Your task to perform on an android device: open app "TextNow: Call + Text Unlimited" (install if not already installed) and enter user name: "stoke@yahoo.com" and password: "prompted" Image 0: 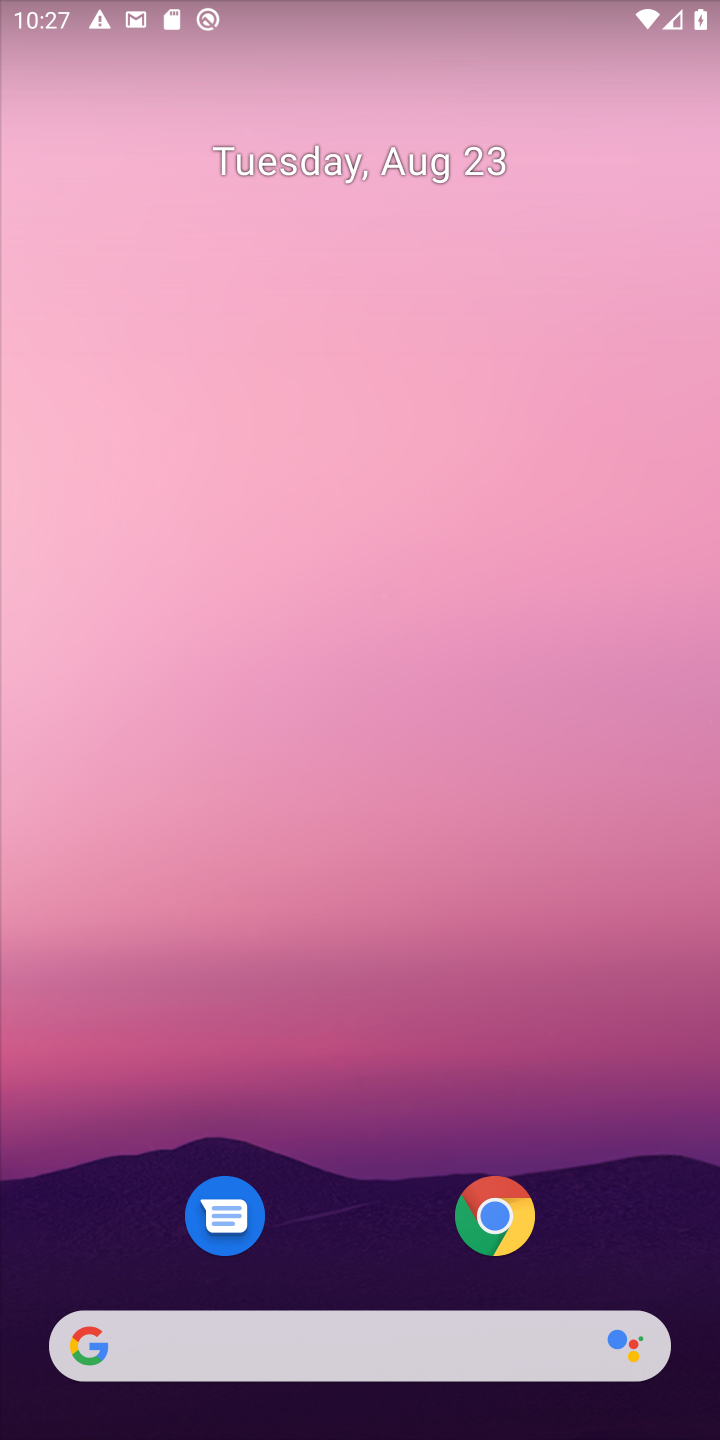
Step 0: drag from (321, 1323) to (366, 93)
Your task to perform on an android device: open app "TextNow: Call + Text Unlimited" (install if not already installed) and enter user name: "stoke@yahoo.com" and password: "prompted" Image 1: 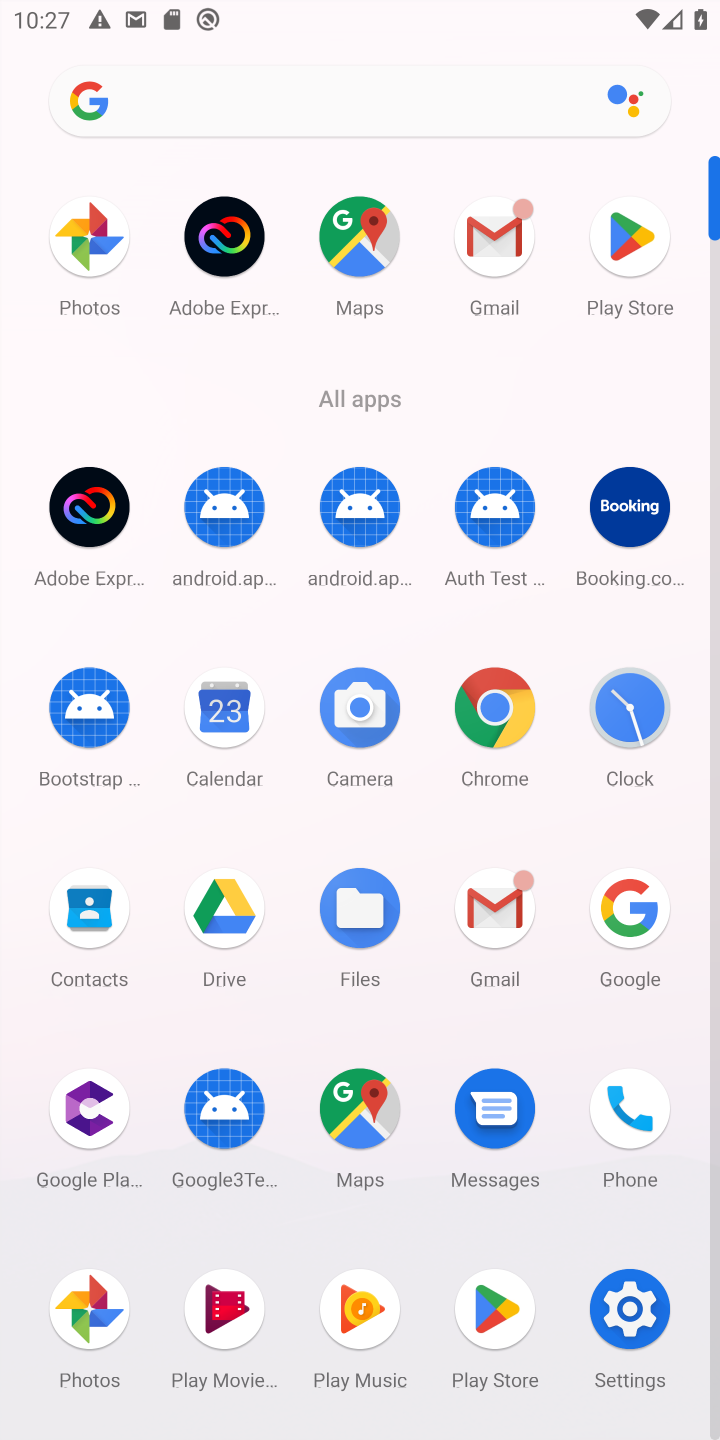
Step 1: click (634, 246)
Your task to perform on an android device: open app "TextNow: Call + Text Unlimited" (install if not already installed) and enter user name: "stoke@yahoo.com" and password: "prompted" Image 2: 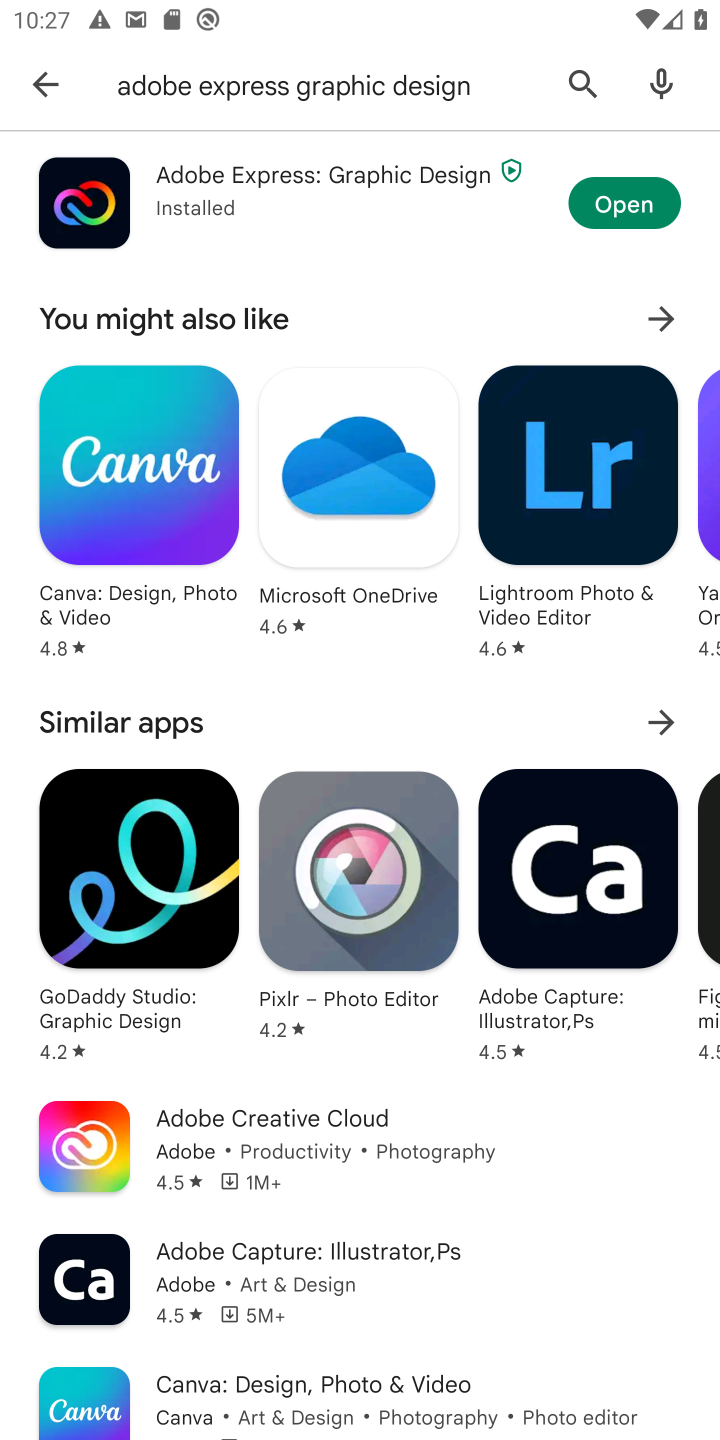
Step 2: press back button
Your task to perform on an android device: open app "TextNow: Call + Text Unlimited" (install if not already installed) and enter user name: "stoke@yahoo.com" and password: "prompted" Image 3: 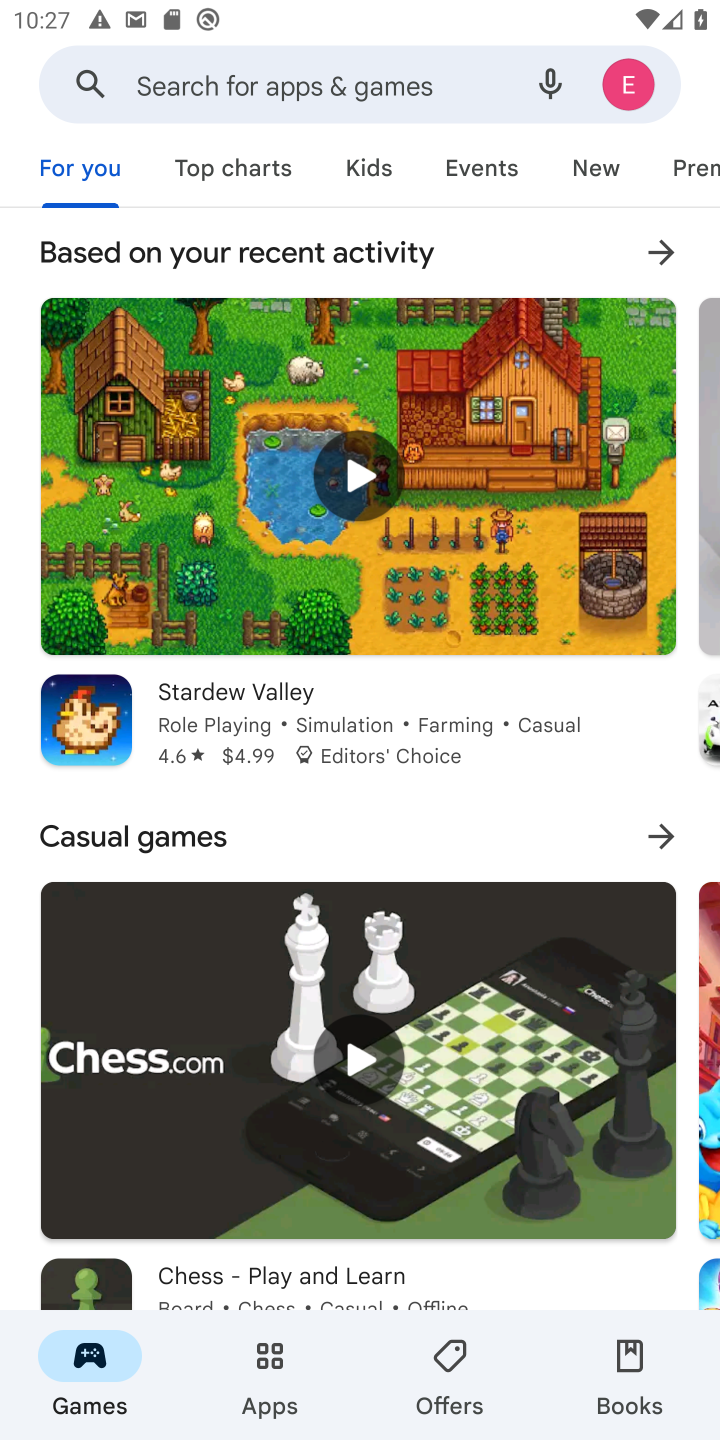
Step 3: click (353, 89)
Your task to perform on an android device: open app "TextNow: Call + Text Unlimited" (install if not already installed) and enter user name: "stoke@yahoo.com" and password: "prompted" Image 4: 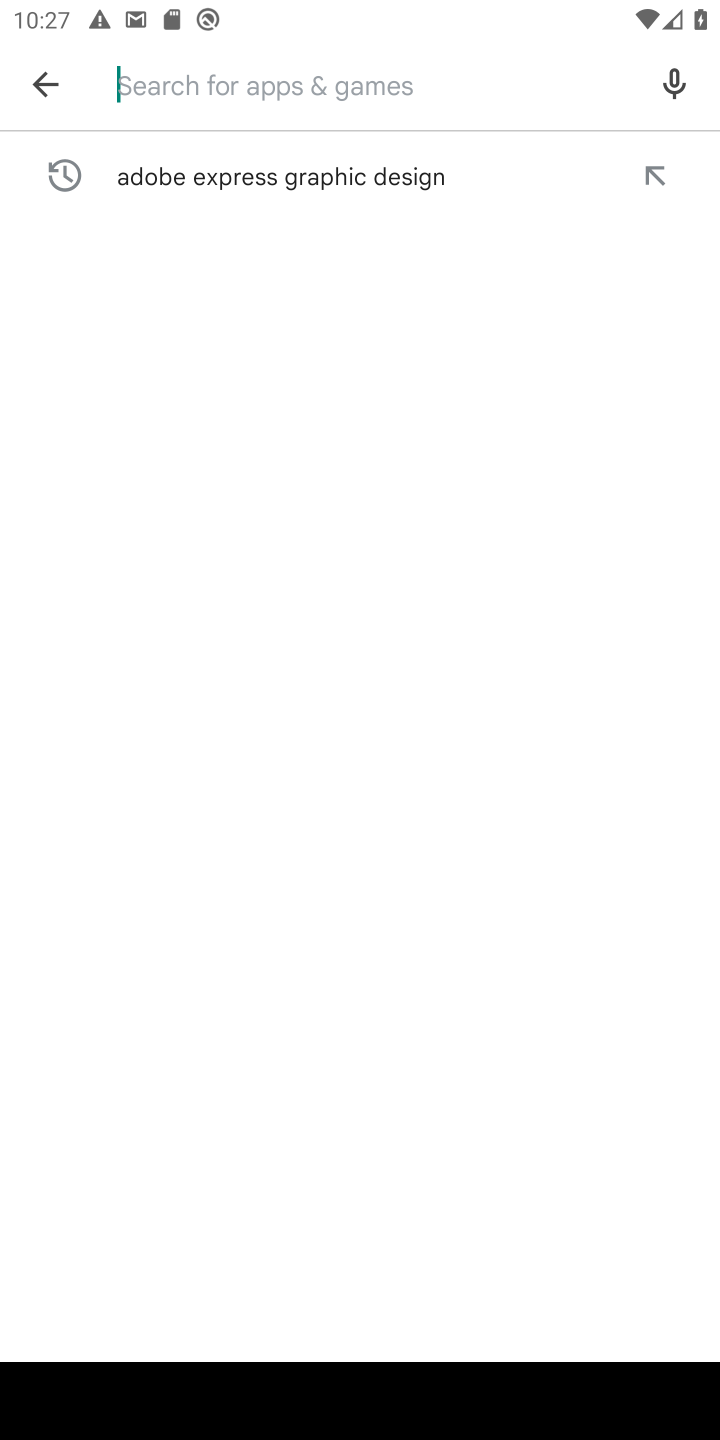
Step 4: type "TextNow: Call + Text Unlimited"
Your task to perform on an android device: open app "TextNow: Call + Text Unlimited" (install if not already installed) and enter user name: "stoke@yahoo.com" and password: "prompted" Image 5: 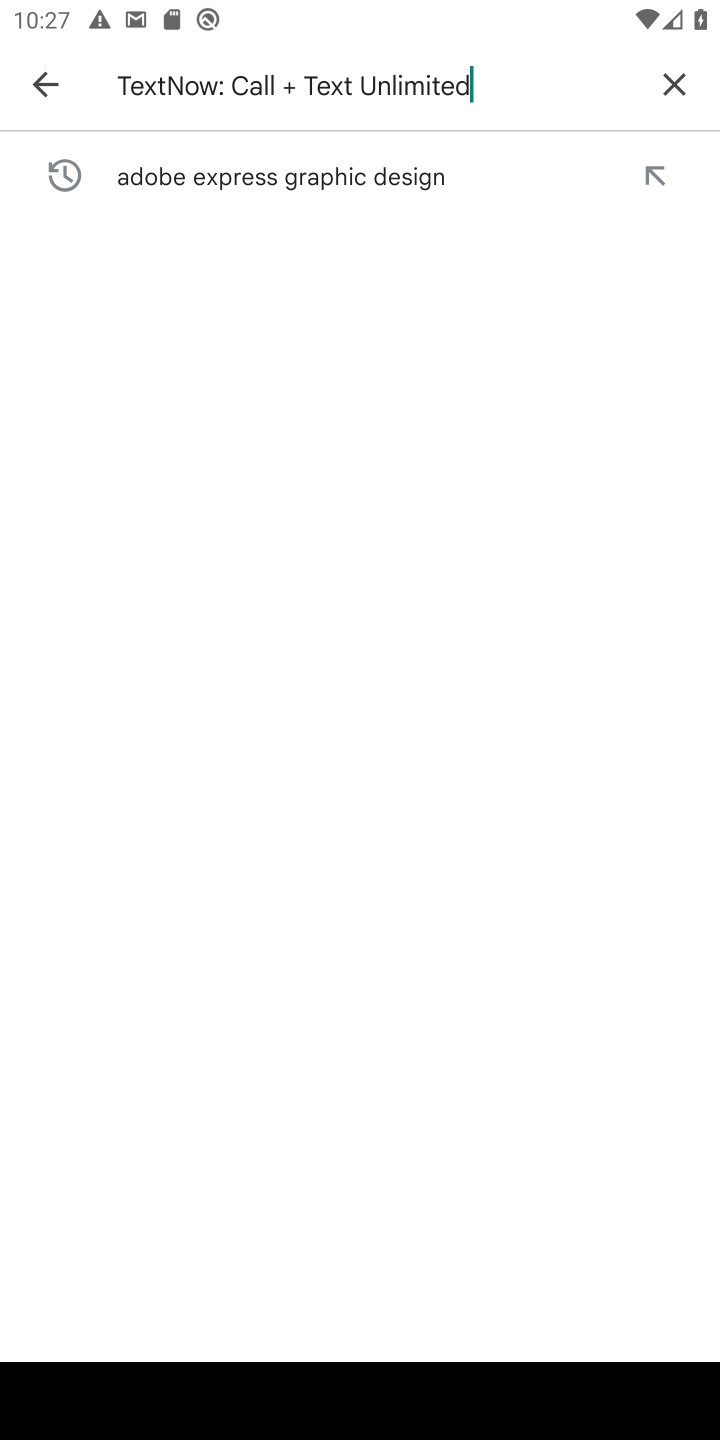
Step 5: type ""
Your task to perform on an android device: open app "TextNow: Call + Text Unlimited" (install if not already installed) and enter user name: "stoke@yahoo.com" and password: "prompted" Image 6: 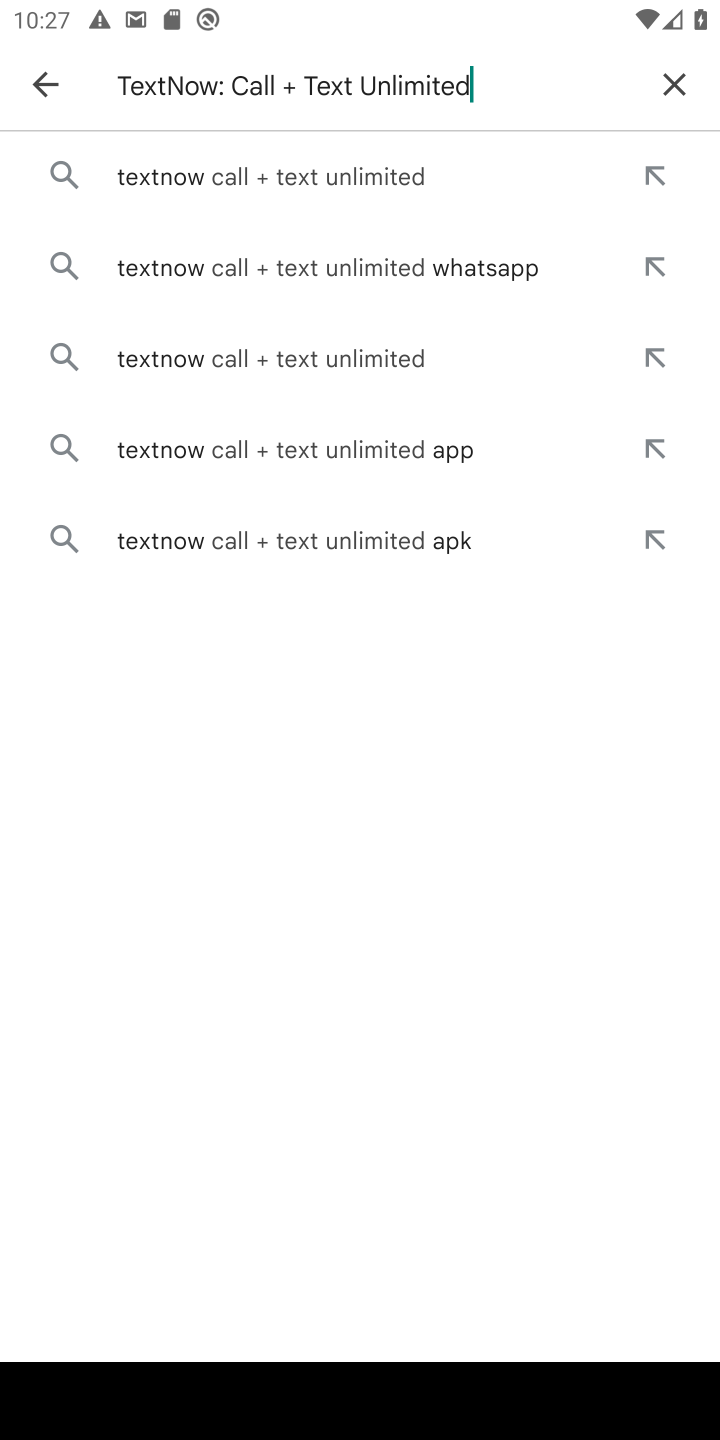
Step 6: click (370, 179)
Your task to perform on an android device: open app "TextNow: Call + Text Unlimited" (install if not already installed) and enter user name: "stoke@yahoo.com" and password: "prompted" Image 7: 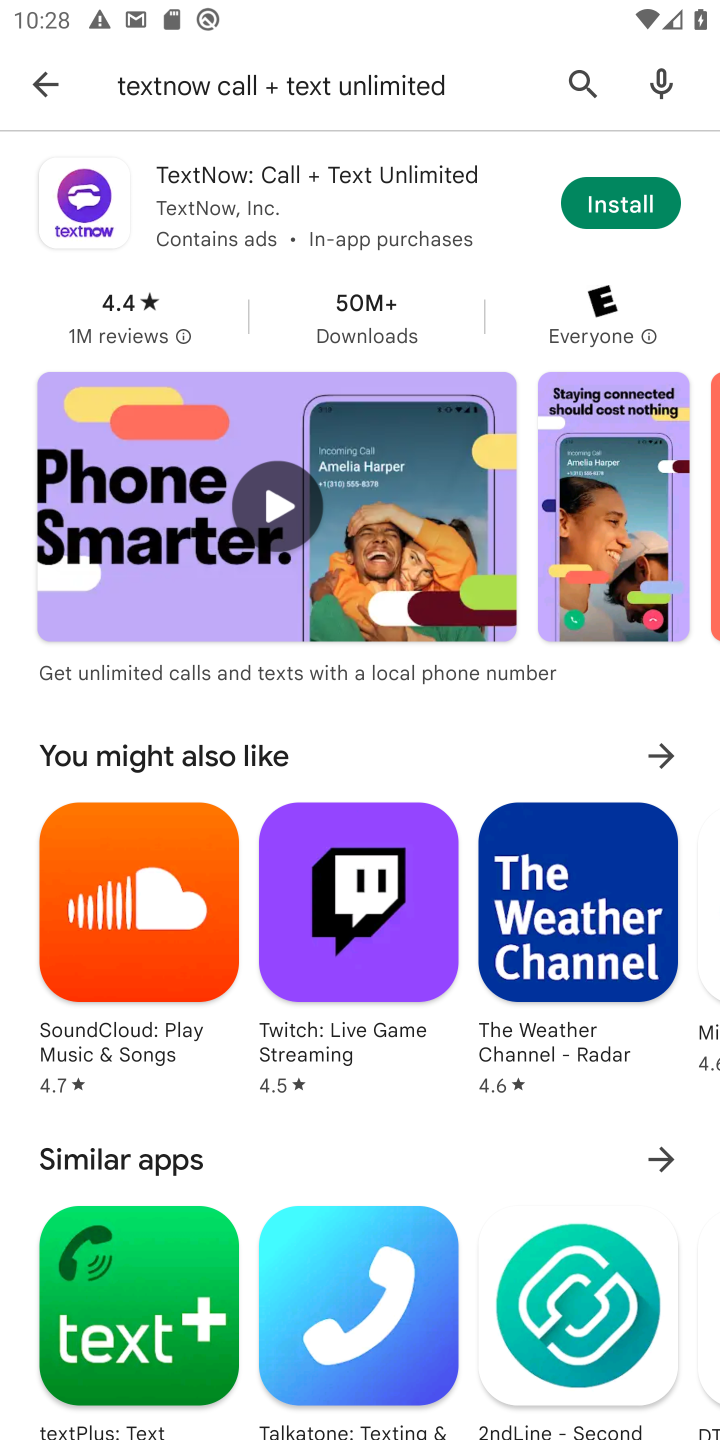
Step 7: click (617, 222)
Your task to perform on an android device: open app "TextNow: Call + Text Unlimited" (install if not already installed) and enter user name: "stoke@yahoo.com" and password: "prompted" Image 8: 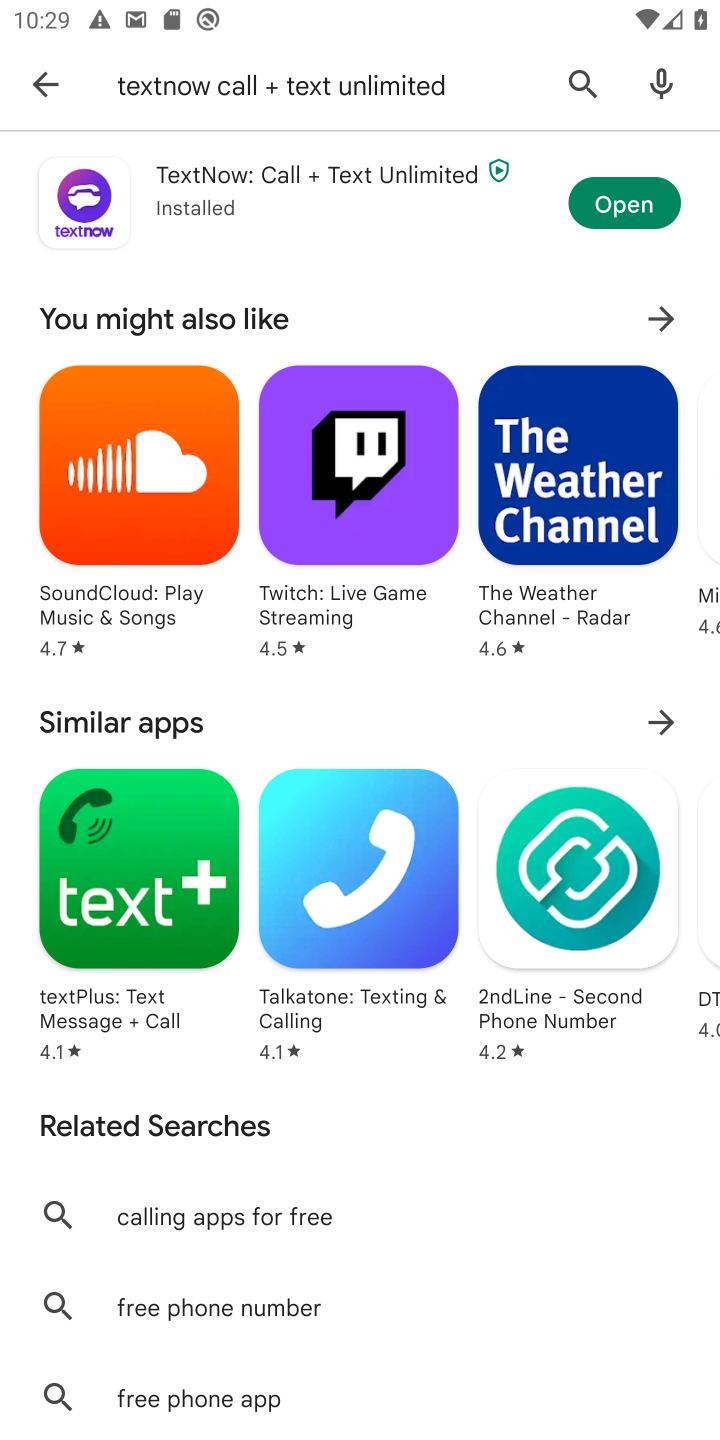
Step 8: click (617, 222)
Your task to perform on an android device: open app "TextNow: Call + Text Unlimited" (install if not already installed) and enter user name: "stoke@yahoo.com" and password: "prompted" Image 9: 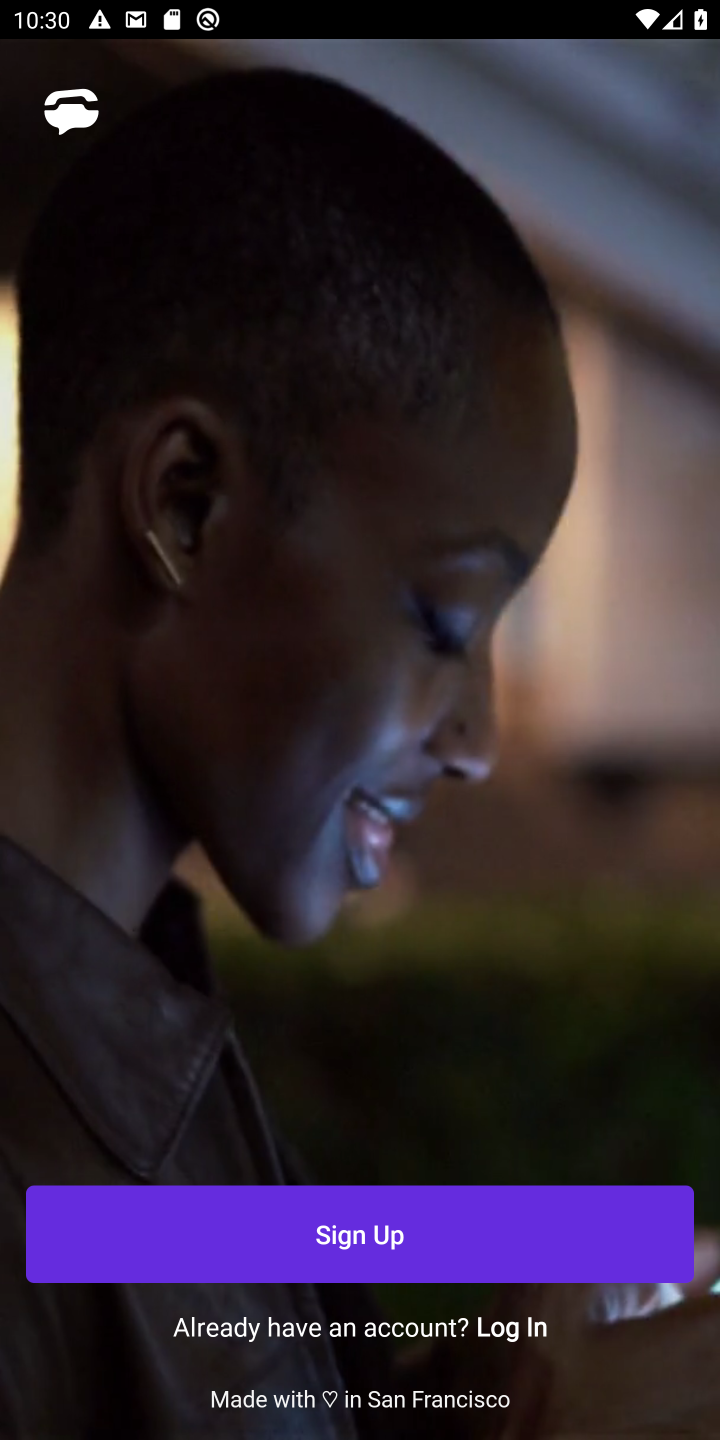
Step 9: click (527, 1329)
Your task to perform on an android device: open app "TextNow: Call + Text Unlimited" (install if not already installed) and enter user name: "stoke@yahoo.com" and password: "prompted" Image 10: 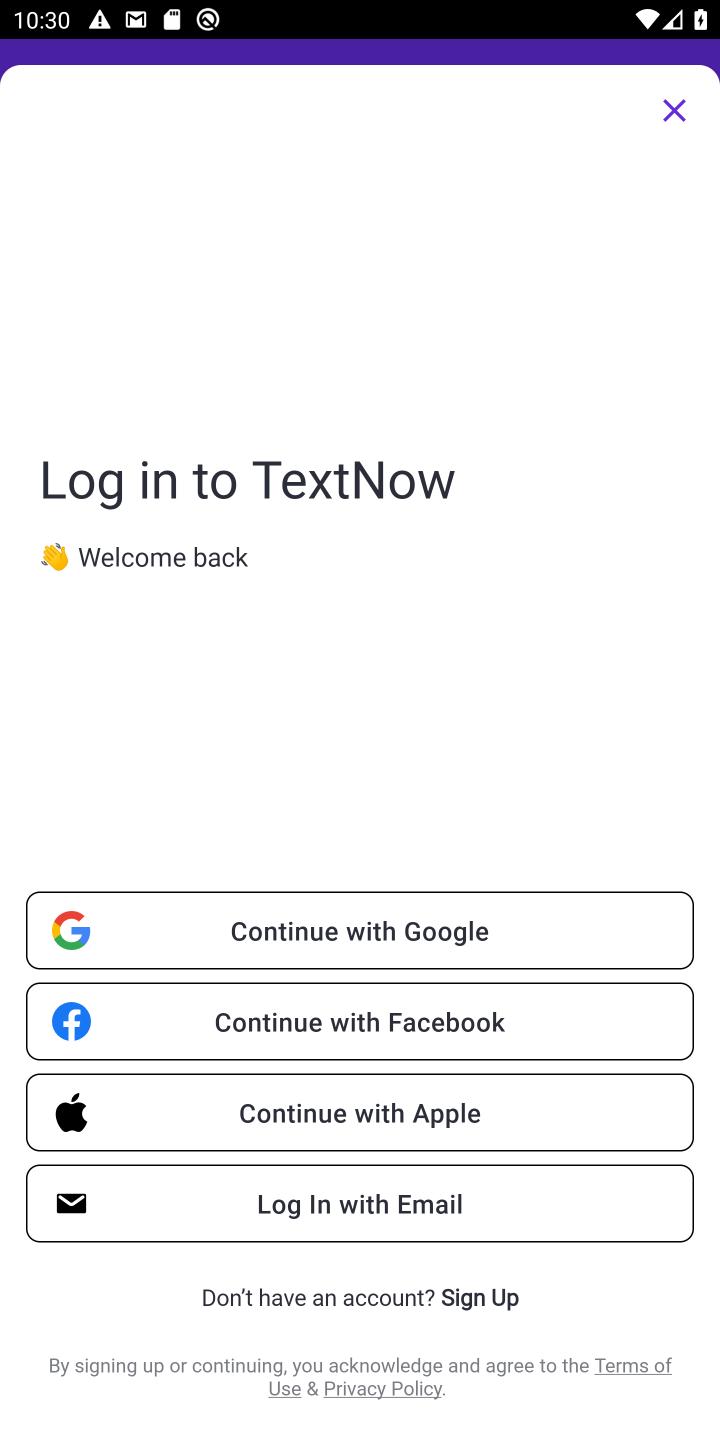
Step 10: click (421, 1200)
Your task to perform on an android device: open app "TextNow: Call + Text Unlimited" (install if not already installed) and enter user name: "stoke@yahoo.com" and password: "prompted" Image 11: 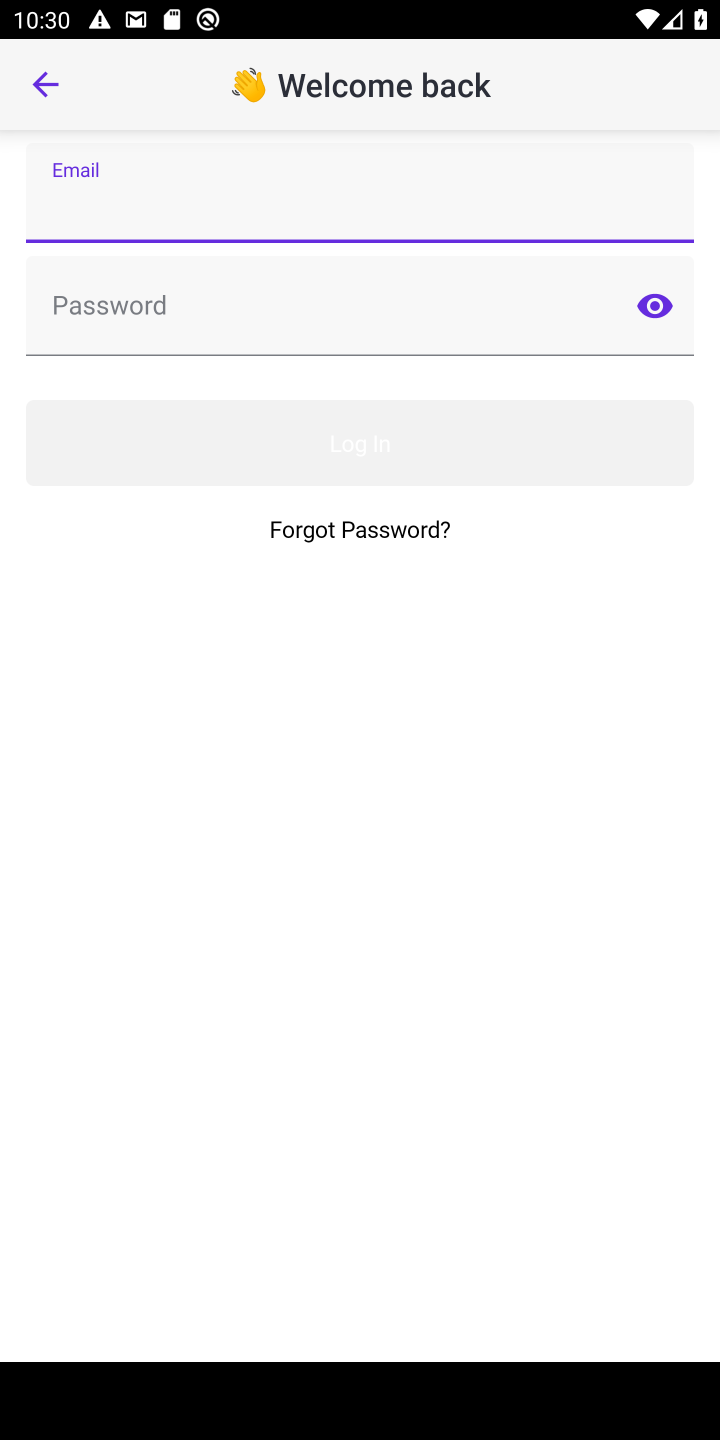
Step 11: click (499, 209)
Your task to perform on an android device: open app "TextNow: Call + Text Unlimited" (install if not already installed) and enter user name: "stoke@yahoo.com" and password: "prompted" Image 12: 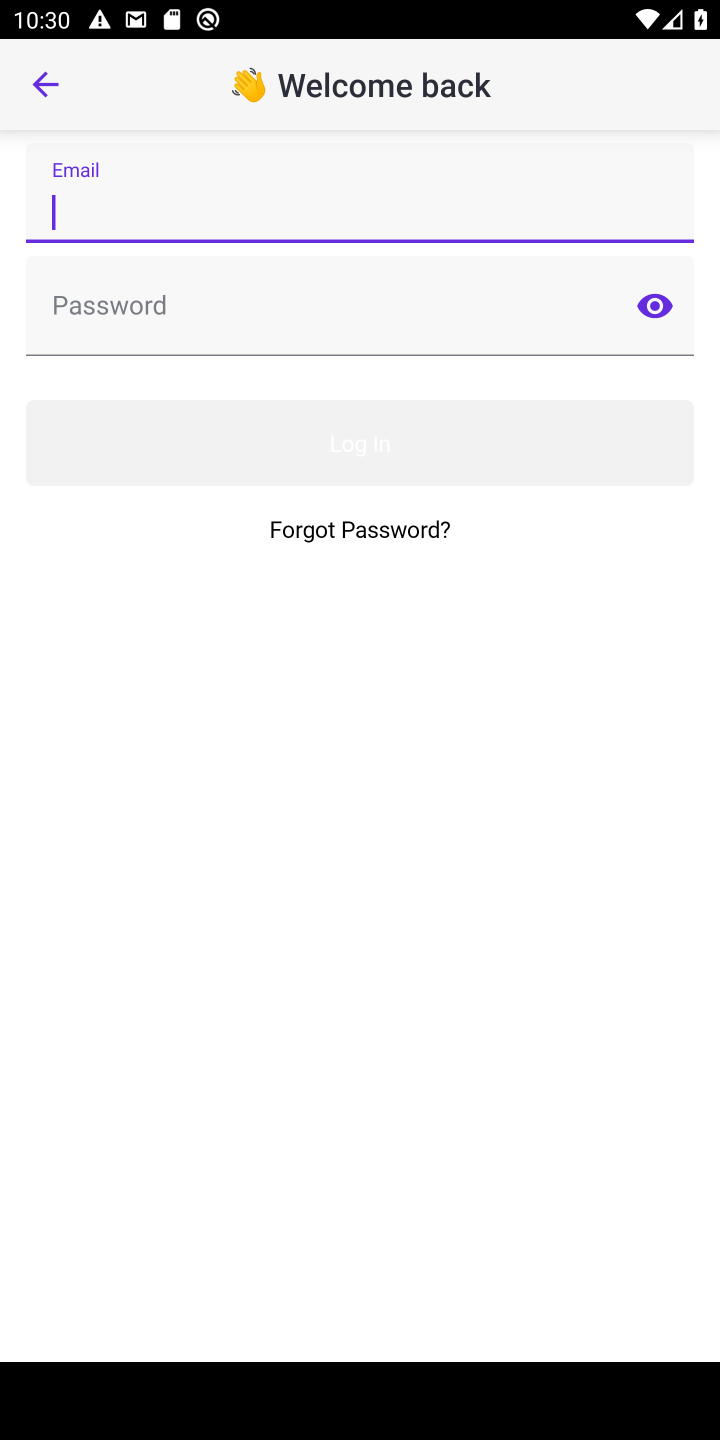
Step 12: click (121, 190)
Your task to perform on an android device: open app "TextNow: Call + Text Unlimited" (install if not already installed) and enter user name: "stoke@yahoo.com" and password: "prompted" Image 13: 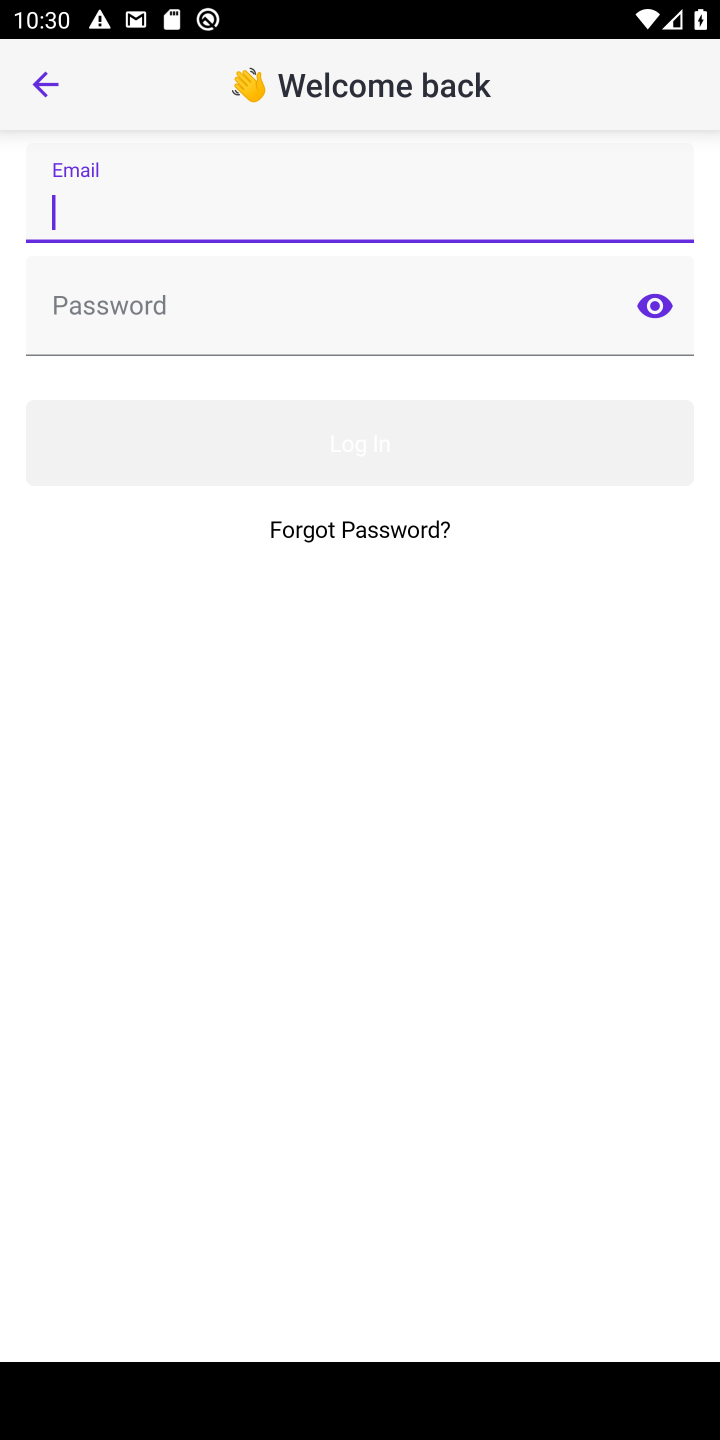
Step 13: type "stoke@yahoo.com"
Your task to perform on an android device: open app "TextNow: Call + Text Unlimited" (install if not already installed) and enter user name: "stoke@yahoo.com" and password: "prompted" Image 14: 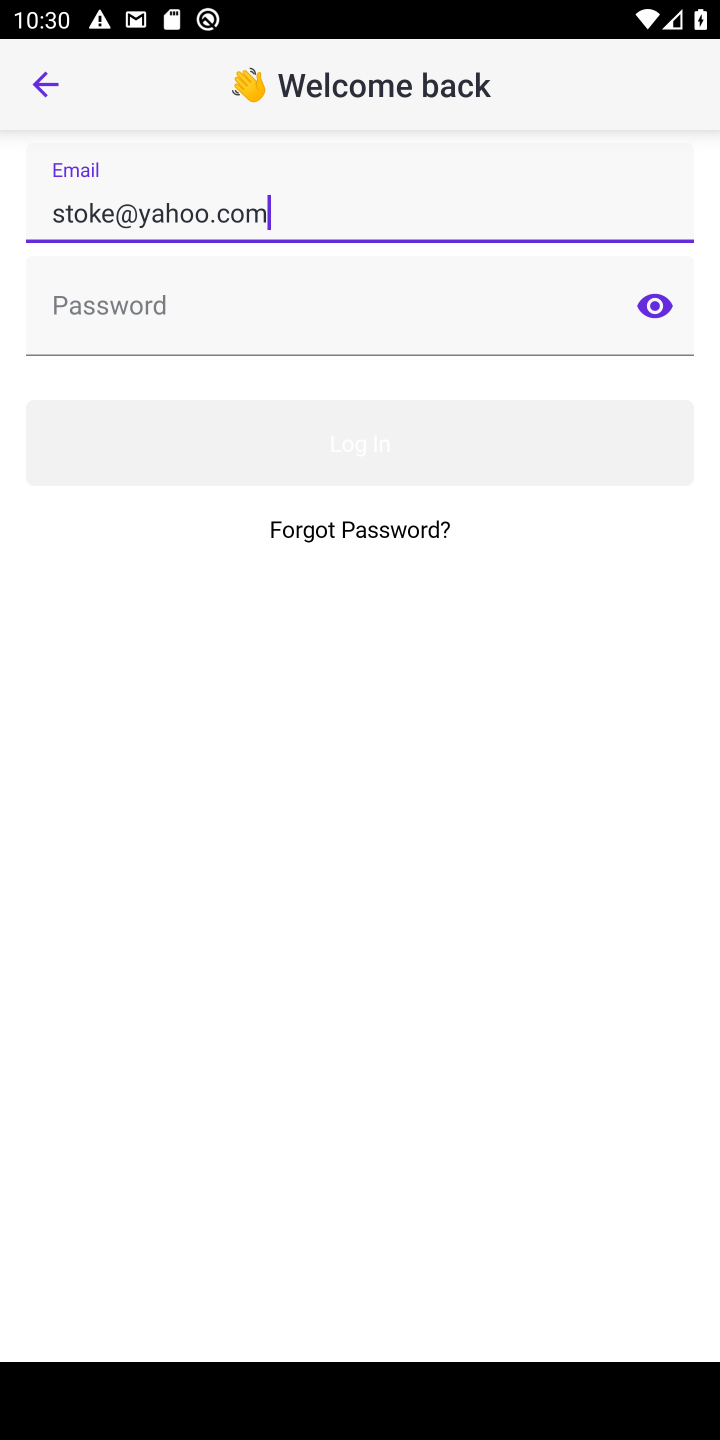
Step 14: type ""
Your task to perform on an android device: open app "TextNow: Call + Text Unlimited" (install if not already installed) and enter user name: "stoke@yahoo.com" and password: "prompted" Image 15: 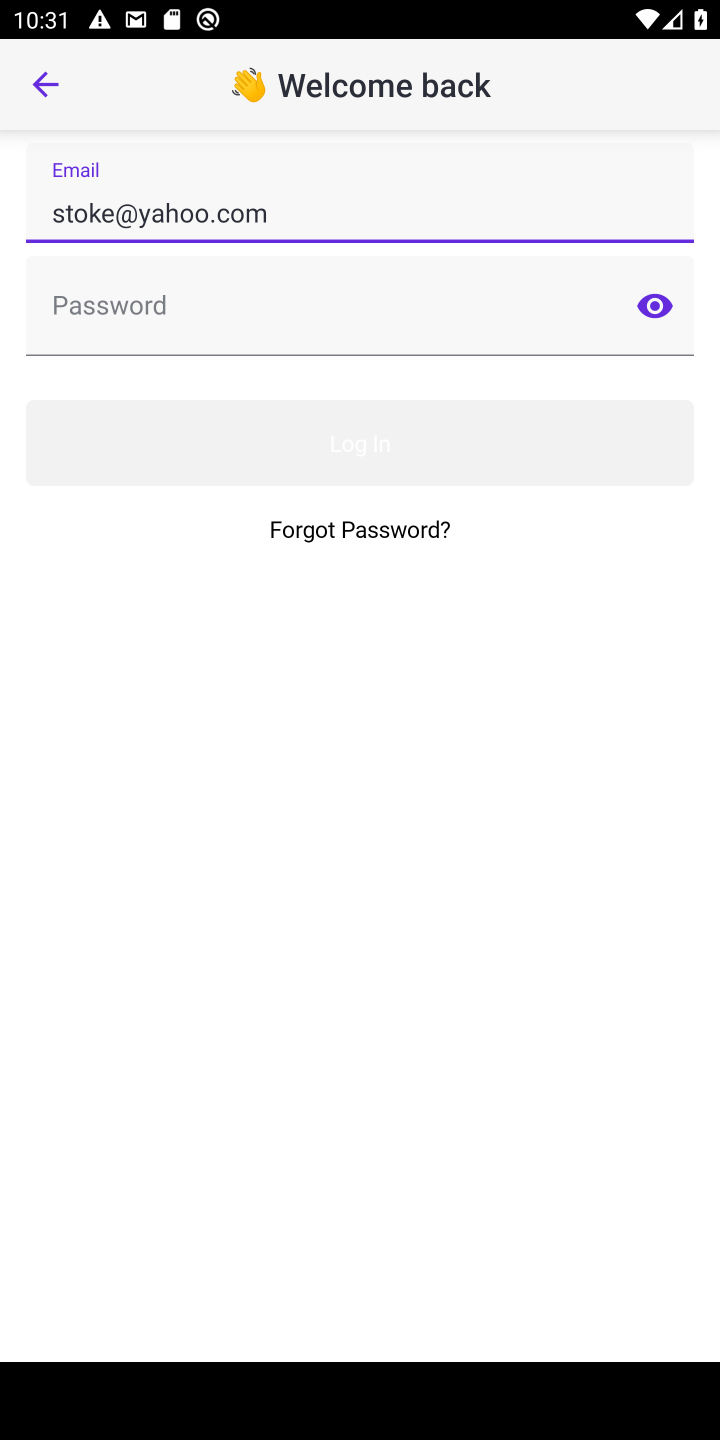
Step 15: click (231, 310)
Your task to perform on an android device: open app "TextNow: Call + Text Unlimited" (install if not already installed) and enter user name: "stoke@yahoo.com" and password: "prompted" Image 16: 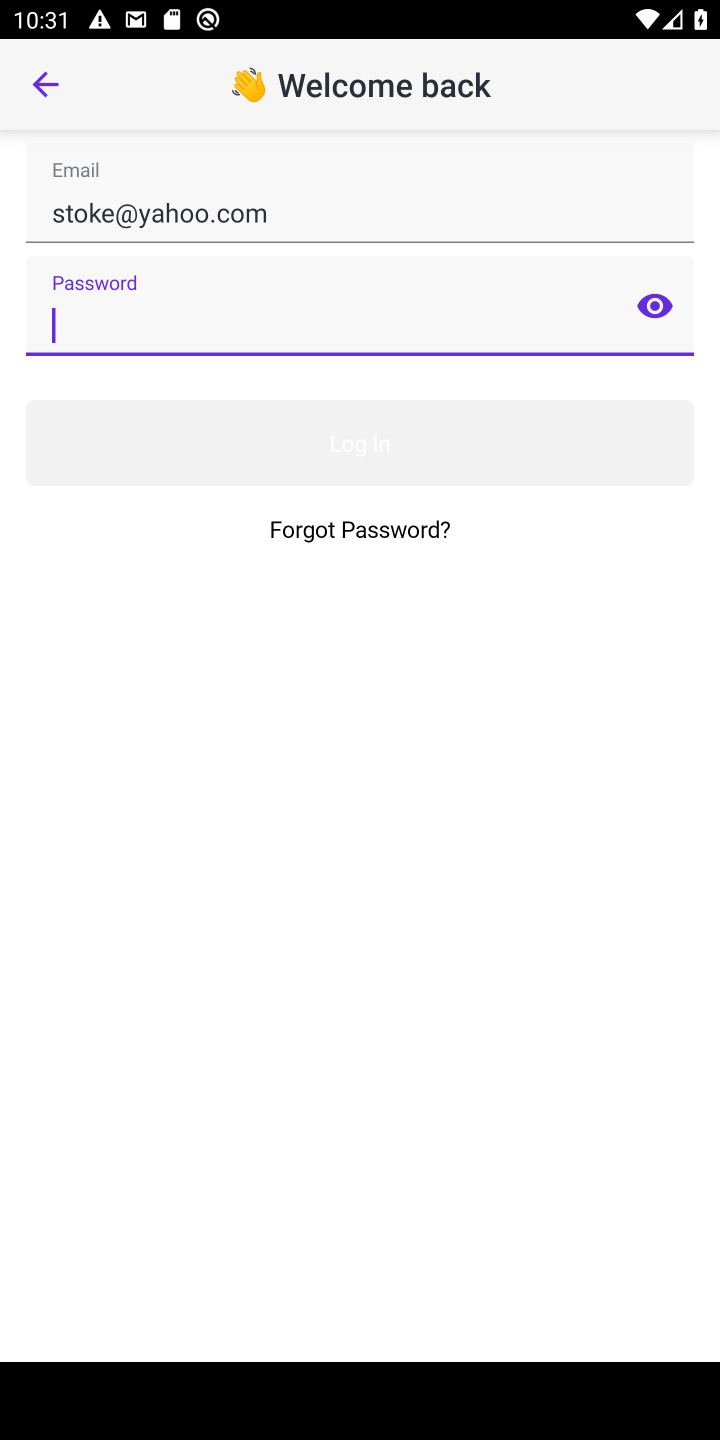
Step 16: type "prompted"
Your task to perform on an android device: open app "TextNow: Call + Text Unlimited" (install if not already installed) and enter user name: "stoke@yahoo.com" and password: "prompted" Image 17: 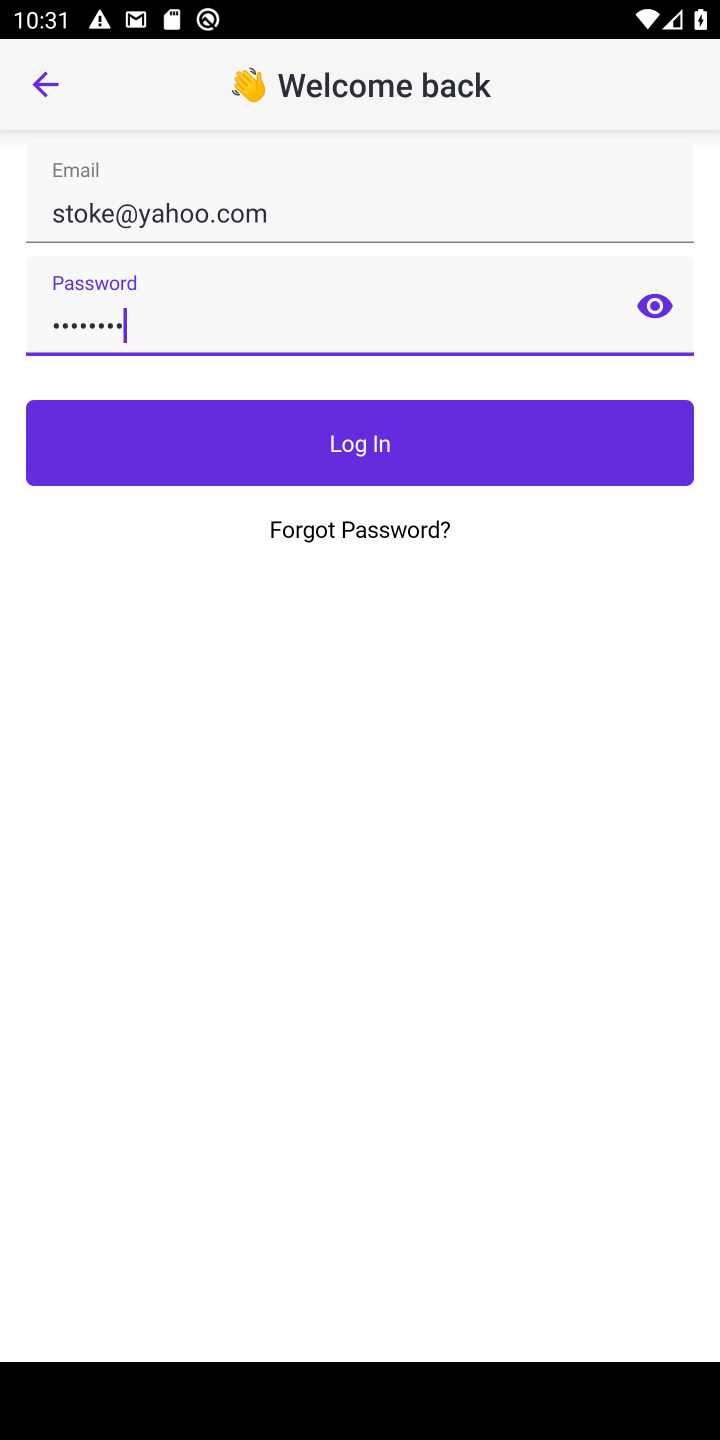
Step 17: task complete